Your task to perform on an android device: What's the weather going to be tomorrow? Image 0: 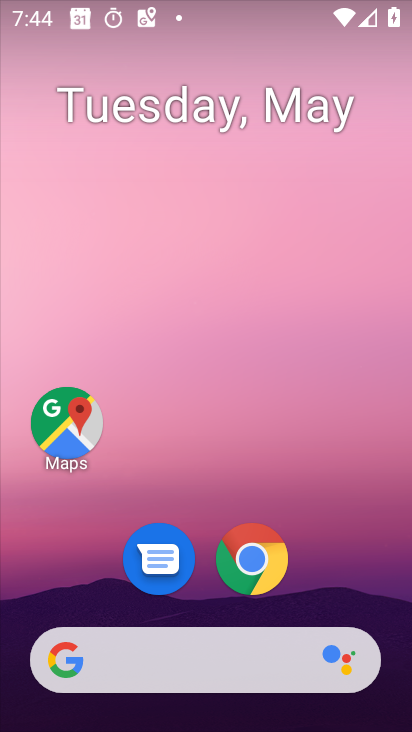
Step 0: drag from (394, 642) to (309, 68)
Your task to perform on an android device: What's the weather going to be tomorrow? Image 1: 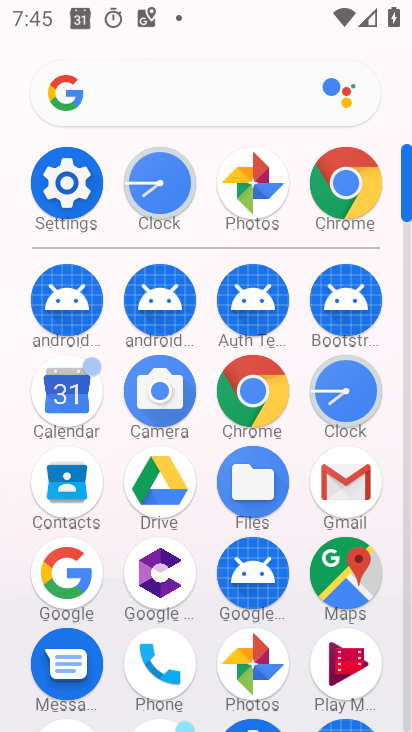
Step 1: click (85, 564)
Your task to perform on an android device: What's the weather going to be tomorrow? Image 2: 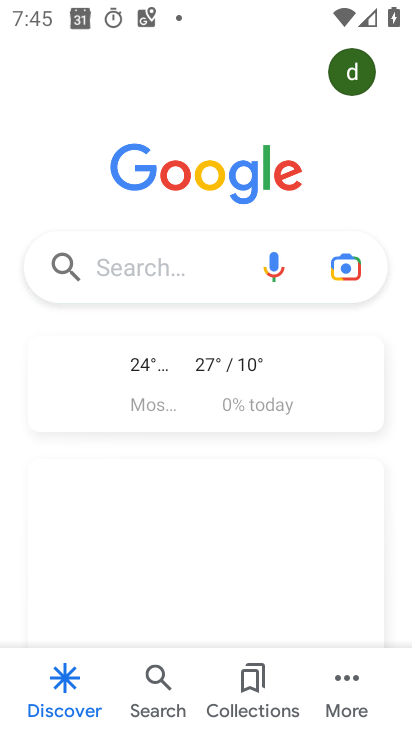
Step 2: click (196, 269)
Your task to perform on an android device: What's the weather going to be tomorrow? Image 3: 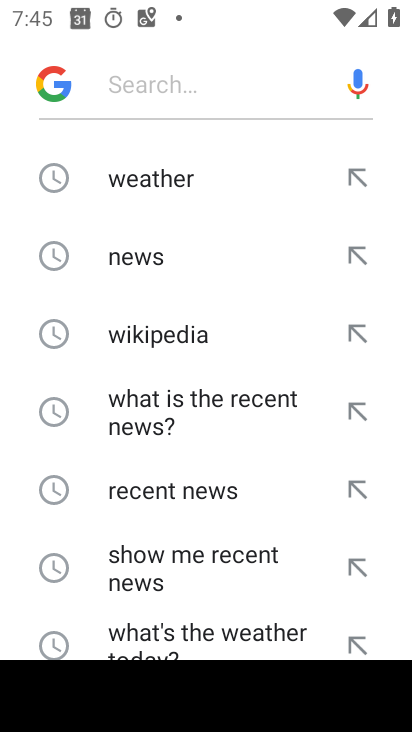
Step 3: drag from (196, 581) to (191, 207)
Your task to perform on an android device: What's the weather going to be tomorrow? Image 4: 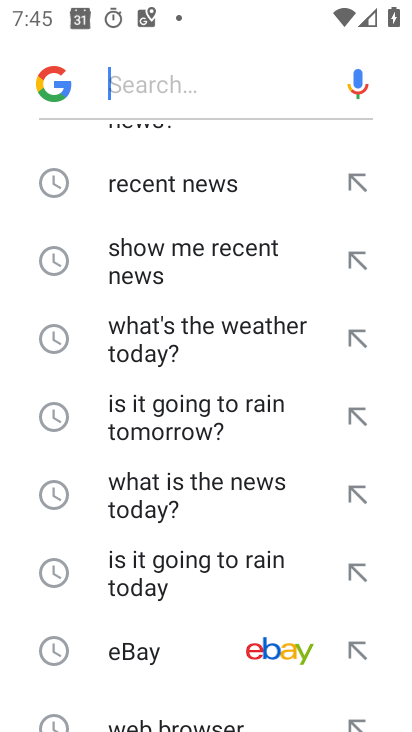
Step 4: drag from (201, 614) to (210, 235)
Your task to perform on an android device: What's the weather going to be tomorrow? Image 5: 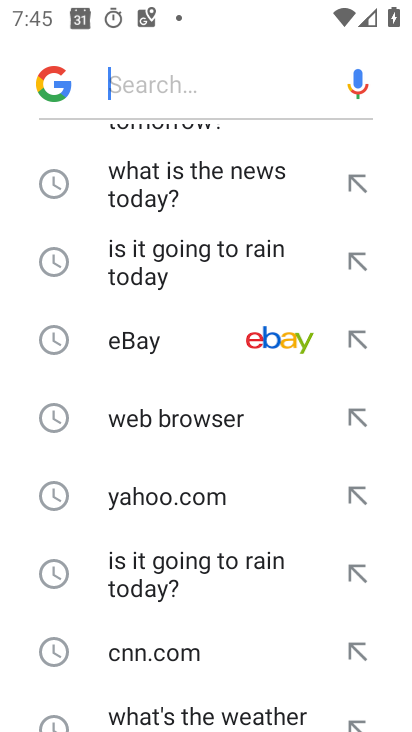
Step 5: drag from (249, 677) to (255, 268)
Your task to perform on an android device: What's the weather going to be tomorrow? Image 6: 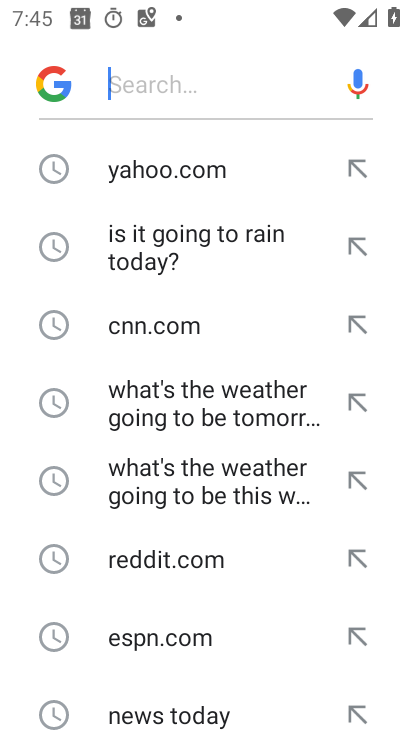
Step 6: click (191, 403)
Your task to perform on an android device: What's the weather going to be tomorrow? Image 7: 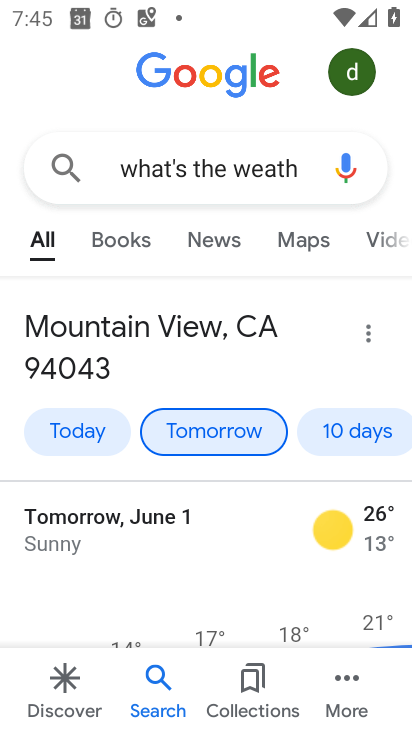
Step 7: task complete